Your task to perform on an android device: Turn off the flashlight Image 0: 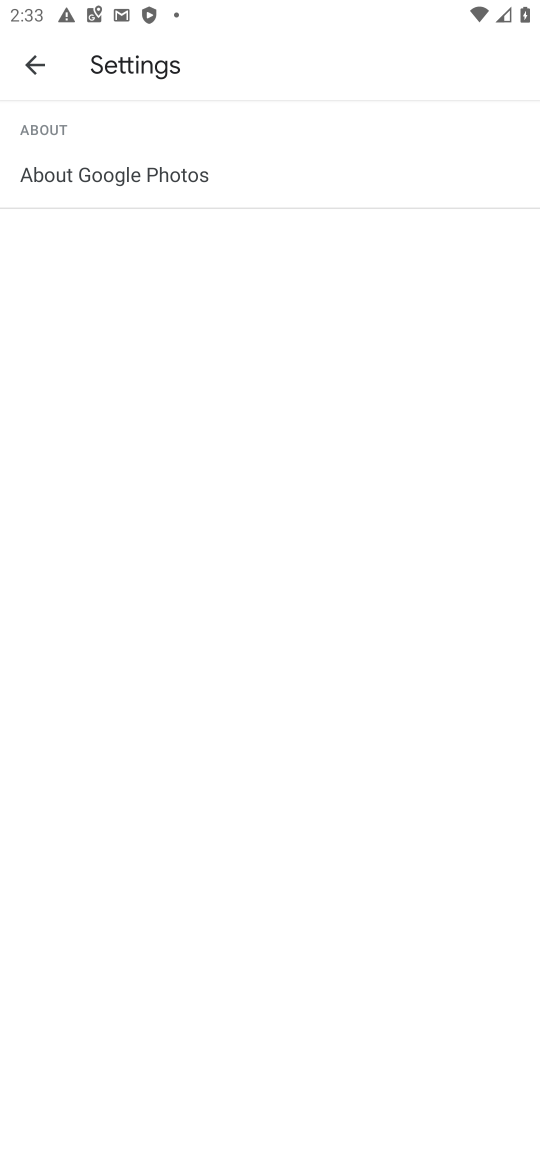
Step 0: press home button
Your task to perform on an android device: Turn off the flashlight Image 1: 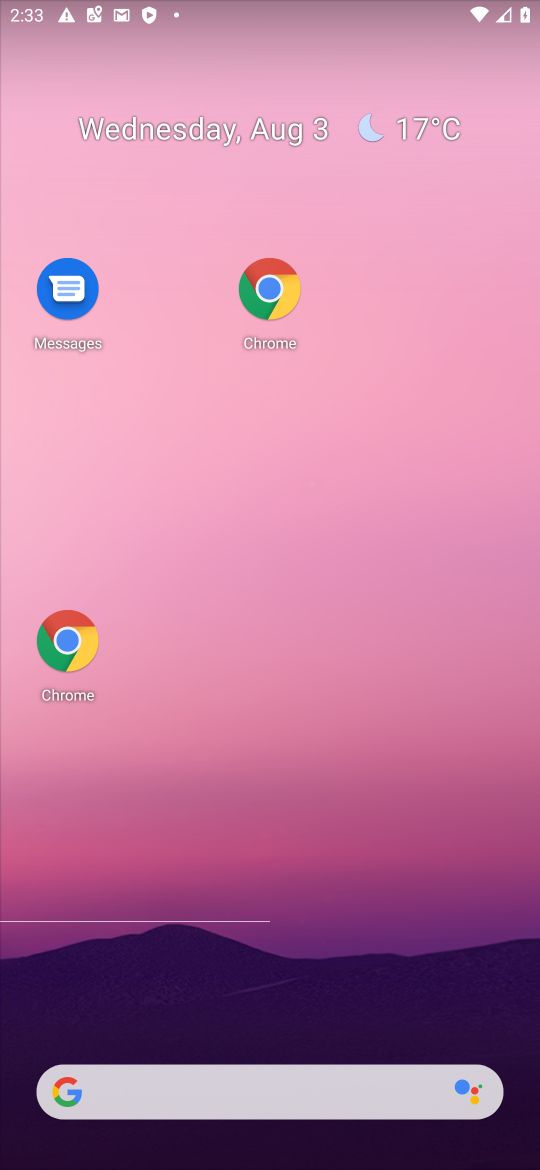
Step 1: drag from (275, 994) to (437, 193)
Your task to perform on an android device: Turn off the flashlight Image 2: 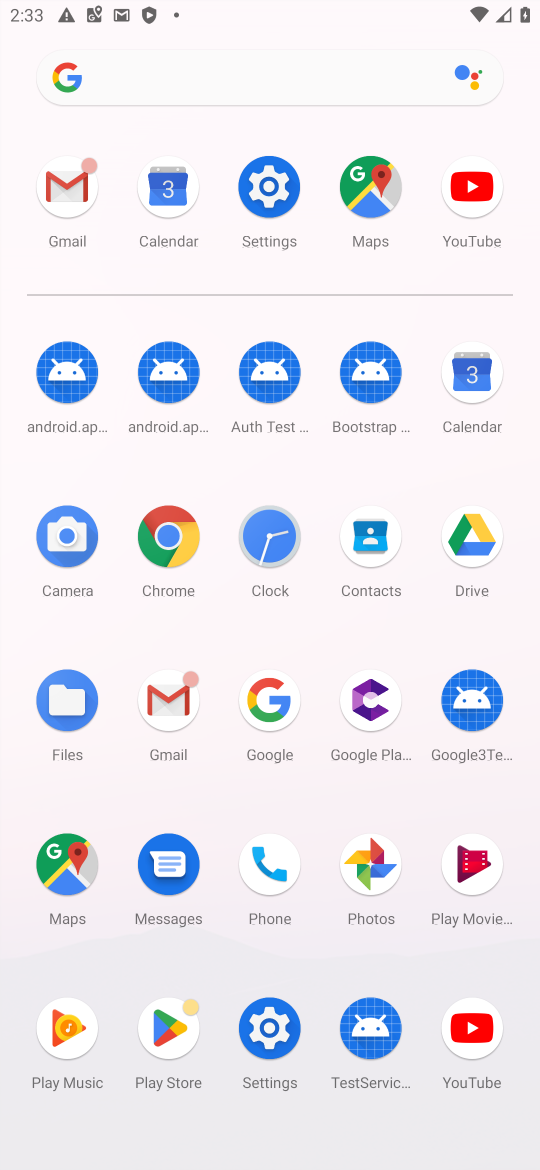
Step 2: click (269, 1022)
Your task to perform on an android device: Turn off the flashlight Image 3: 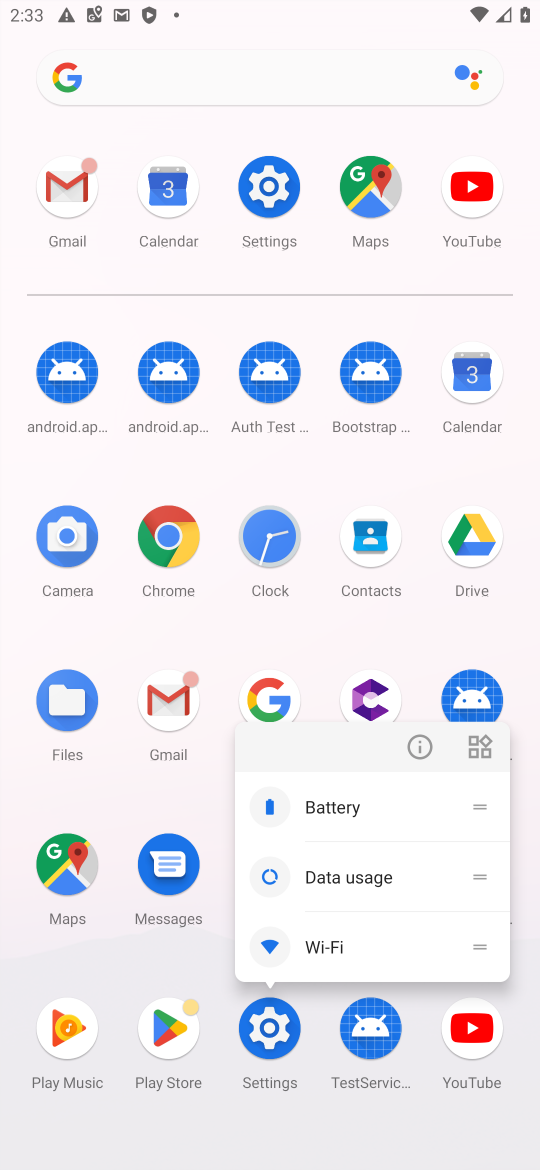
Step 3: click (269, 1022)
Your task to perform on an android device: Turn off the flashlight Image 4: 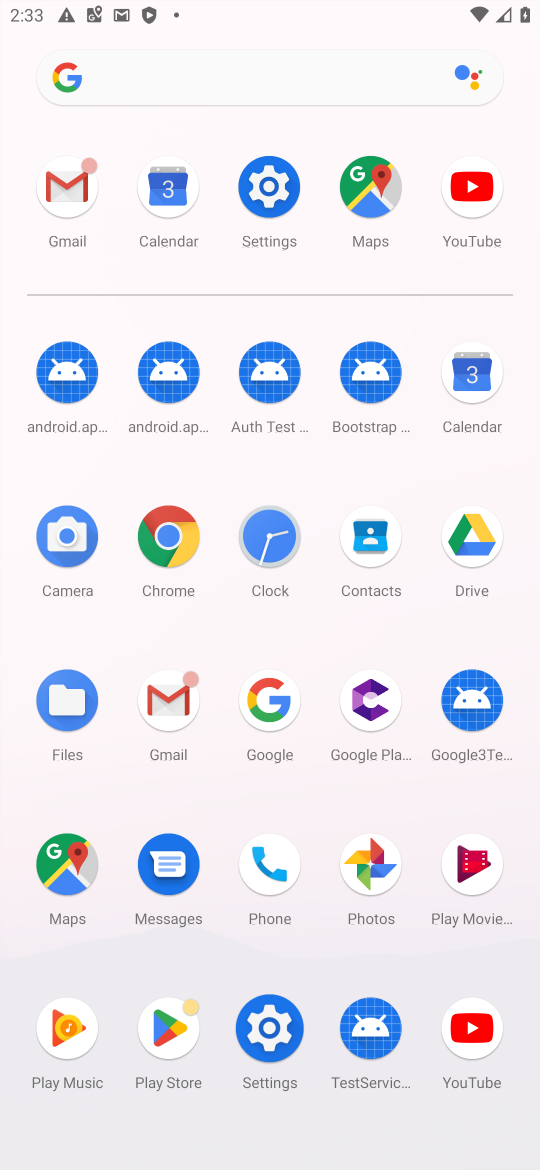
Step 4: click (269, 1022)
Your task to perform on an android device: Turn off the flashlight Image 5: 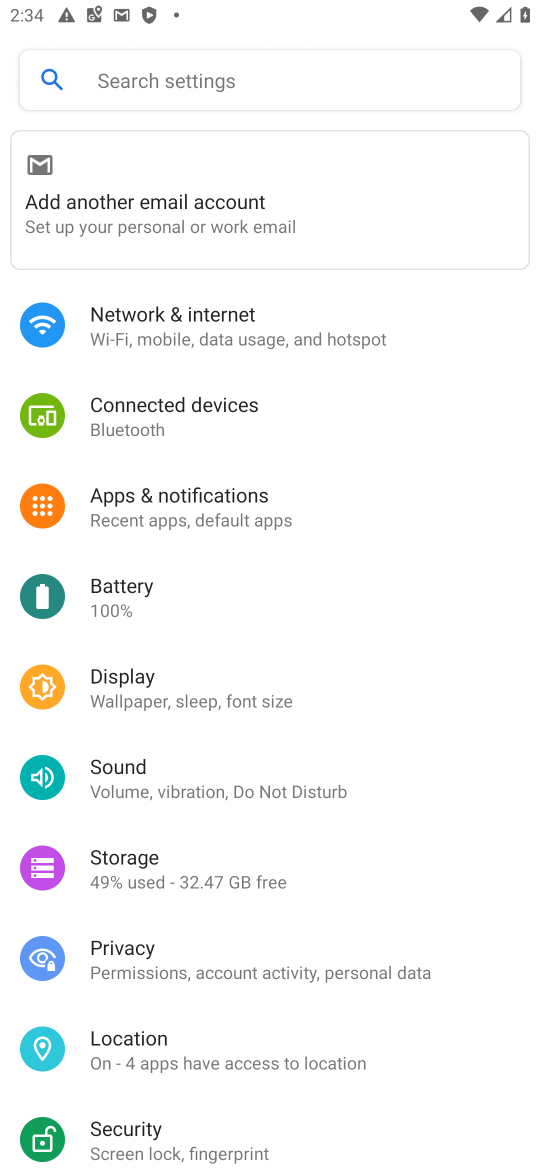
Step 5: task complete